Your task to perform on an android device: Search for Italian restaurants on Maps Image 0: 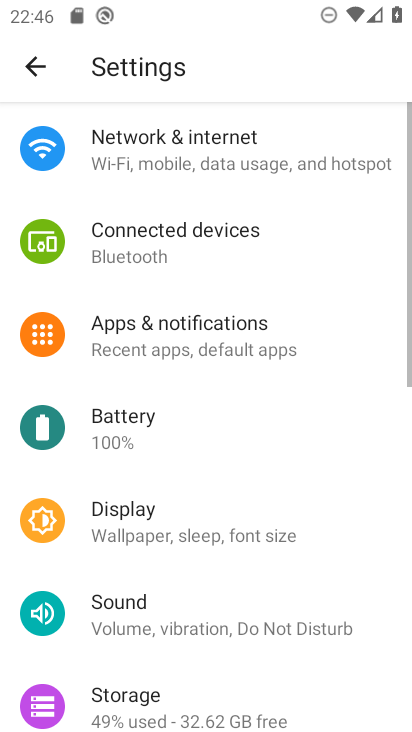
Step 0: press home button
Your task to perform on an android device: Search for Italian restaurants on Maps Image 1: 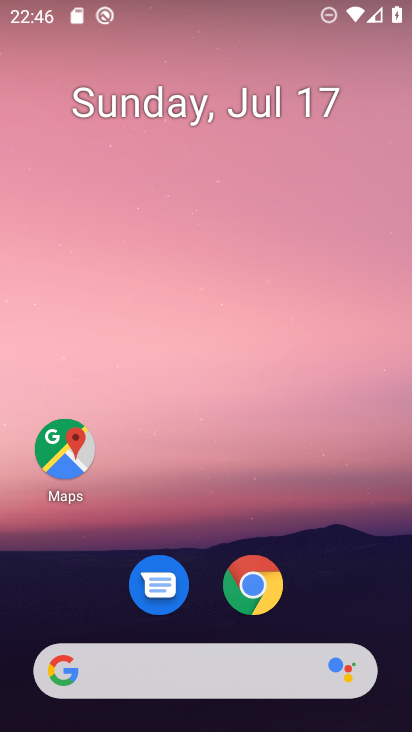
Step 1: click (64, 452)
Your task to perform on an android device: Search for Italian restaurants on Maps Image 2: 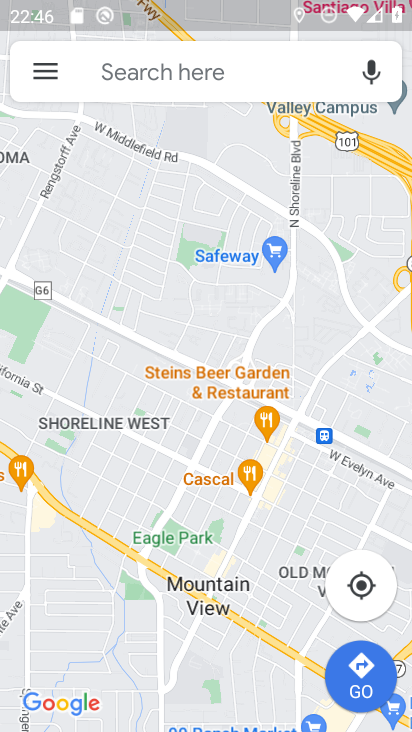
Step 2: click (155, 68)
Your task to perform on an android device: Search for Italian restaurants on Maps Image 3: 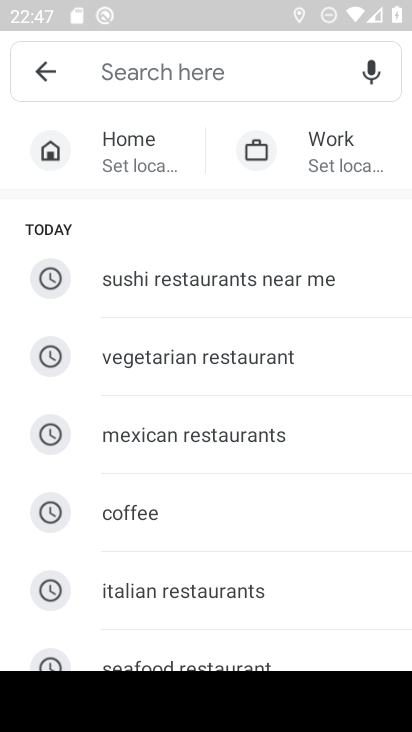
Step 3: click (196, 597)
Your task to perform on an android device: Search for Italian restaurants on Maps Image 4: 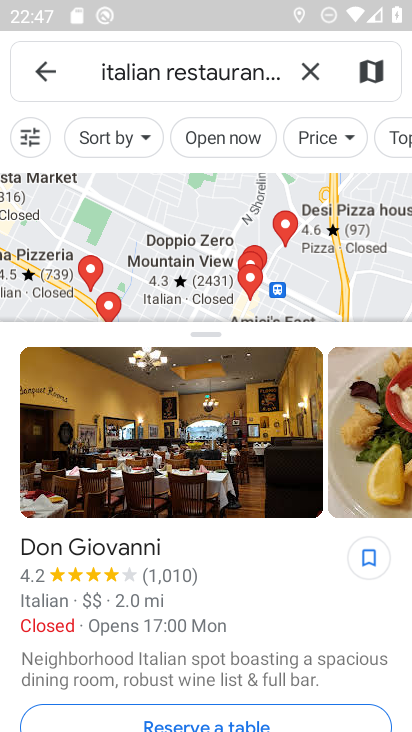
Step 4: task complete